Your task to perform on an android device: Go to Google maps Image 0: 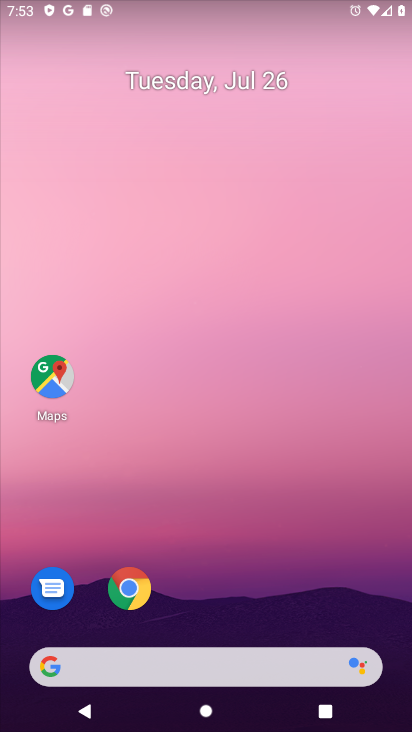
Step 0: click (386, 410)
Your task to perform on an android device: Go to Google maps Image 1: 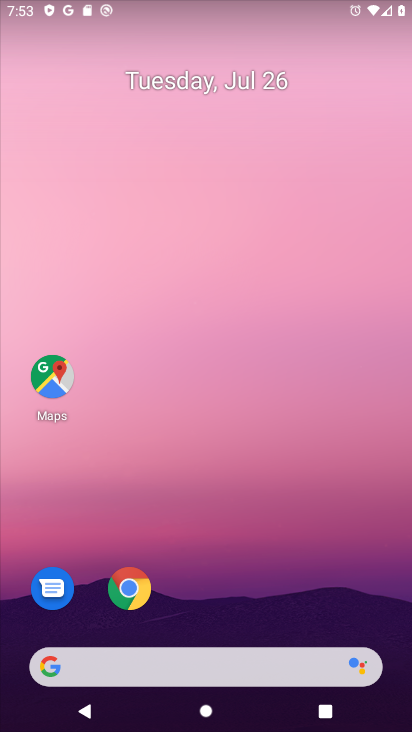
Step 1: drag from (218, 654) to (209, 121)
Your task to perform on an android device: Go to Google maps Image 2: 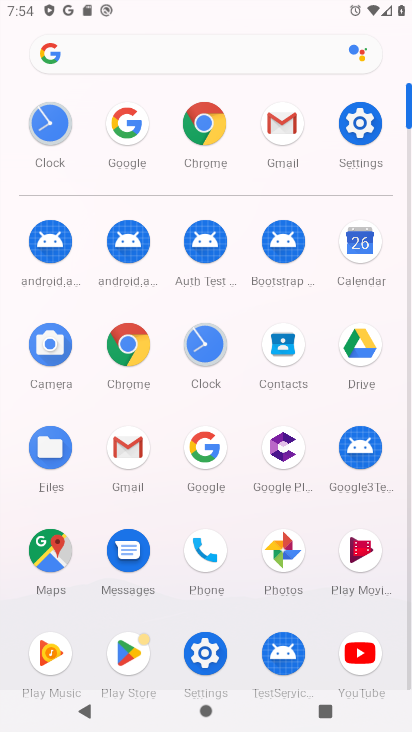
Step 2: click (57, 565)
Your task to perform on an android device: Go to Google maps Image 3: 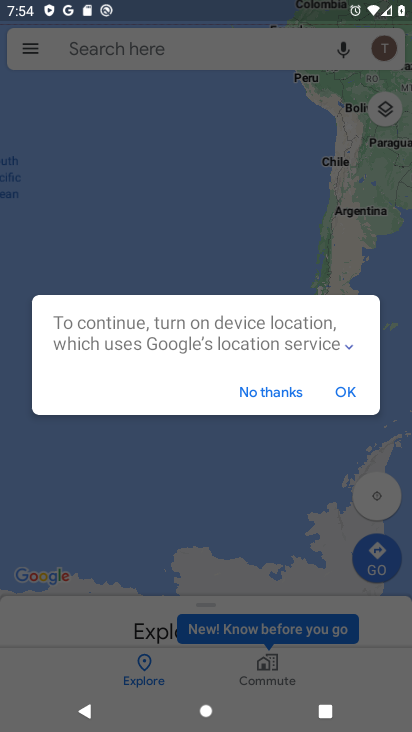
Step 3: click (351, 405)
Your task to perform on an android device: Go to Google maps Image 4: 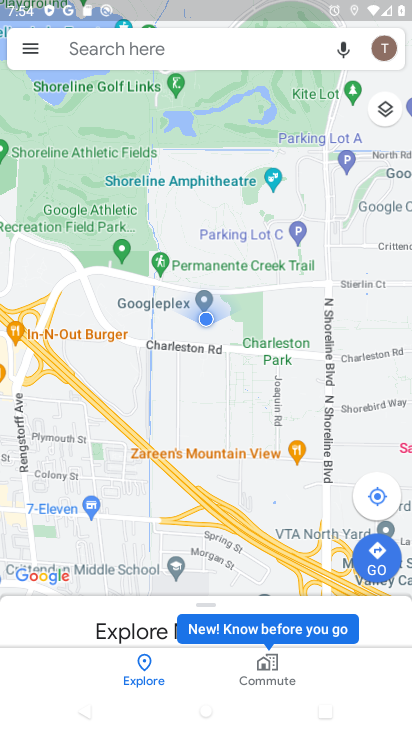
Step 4: task complete